Your task to perform on an android device: Go to internet settings Image 0: 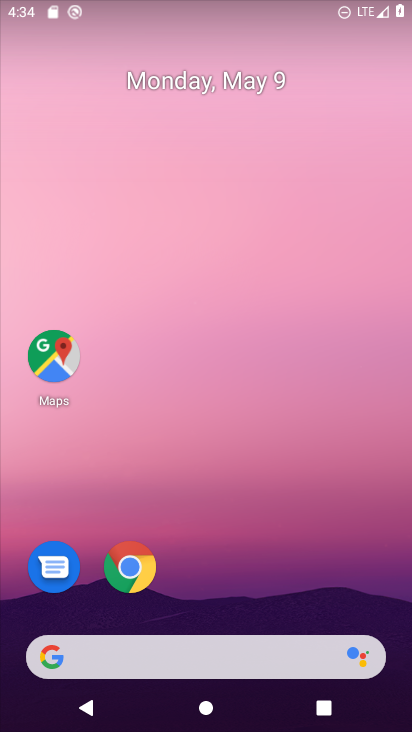
Step 0: drag from (215, 616) to (200, 174)
Your task to perform on an android device: Go to internet settings Image 1: 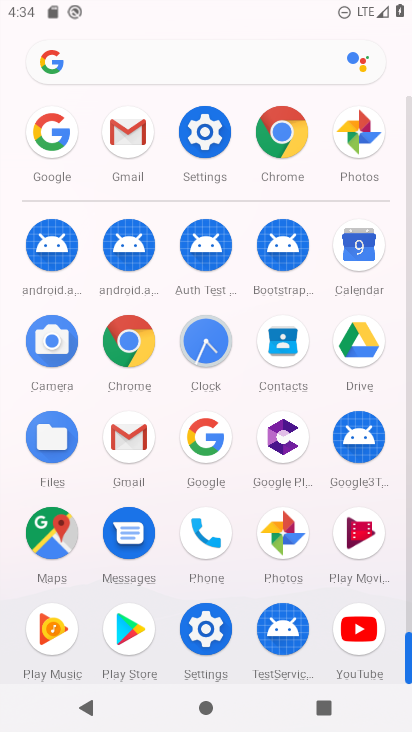
Step 1: click (201, 132)
Your task to perform on an android device: Go to internet settings Image 2: 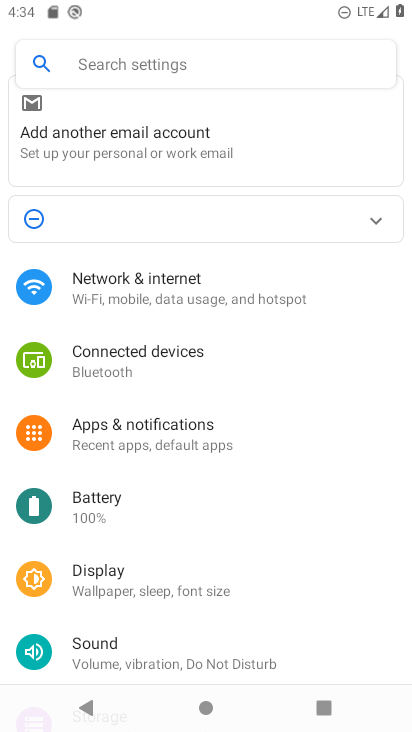
Step 2: click (188, 286)
Your task to perform on an android device: Go to internet settings Image 3: 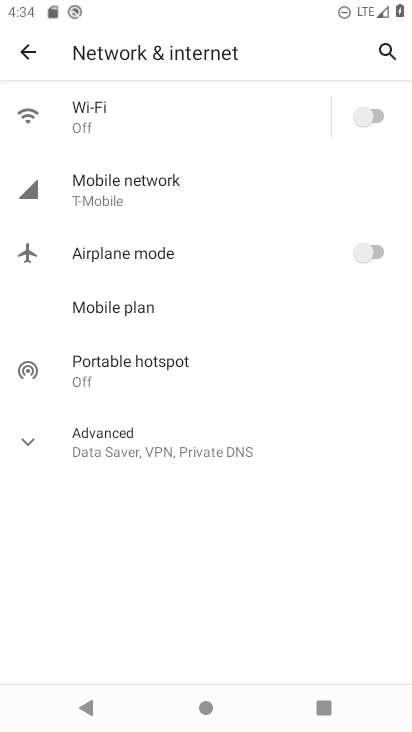
Step 3: task complete